Your task to perform on an android device: delete location history Image 0: 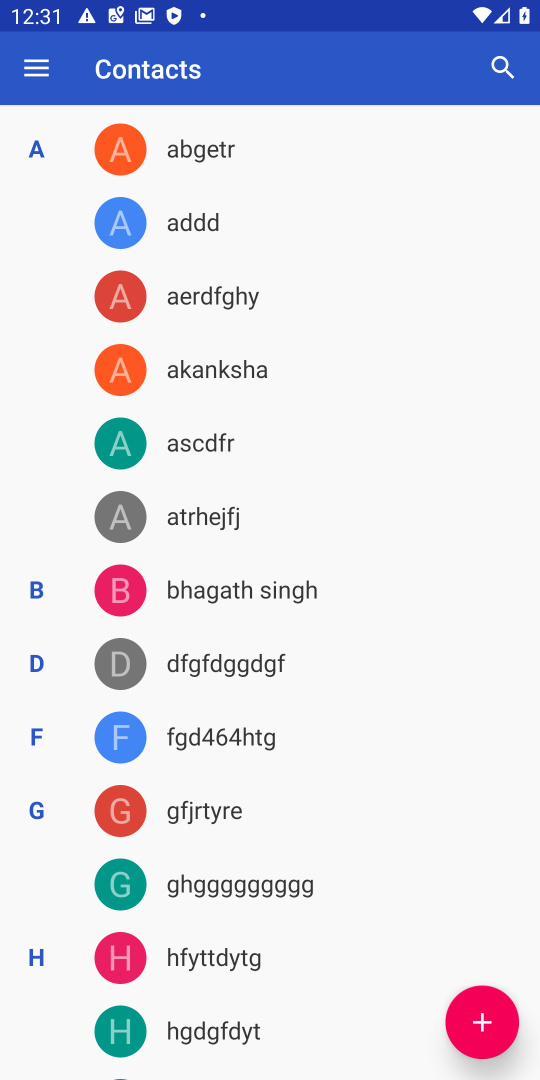
Step 0: press back button
Your task to perform on an android device: delete location history Image 1: 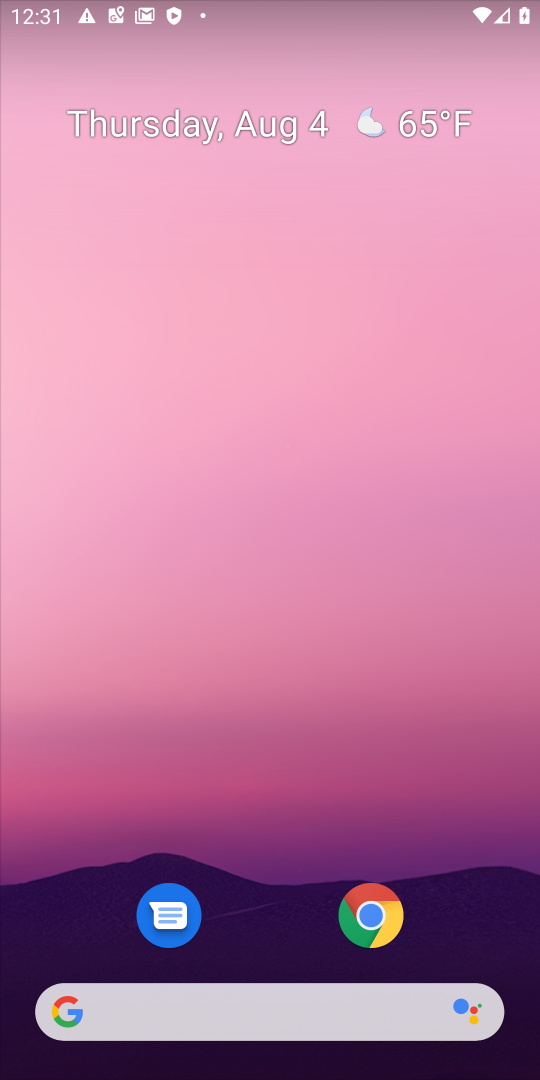
Step 1: drag from (269, 835) to (228, 102)
Your task to perform on an android device: delete location history Image 2: 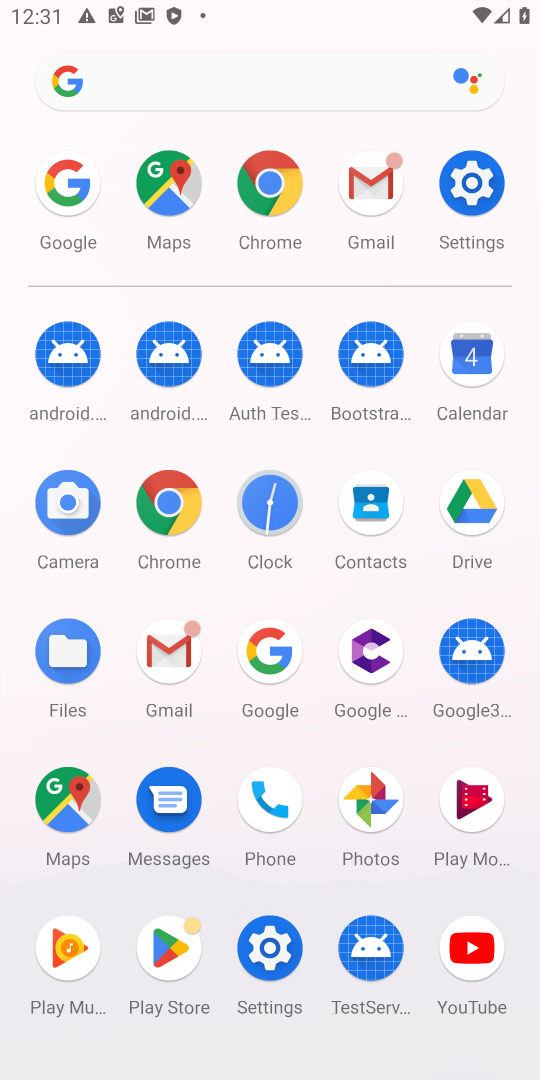
Step 2: click (471, 186)
Your task to perform on an android device: delete location history Image 3: 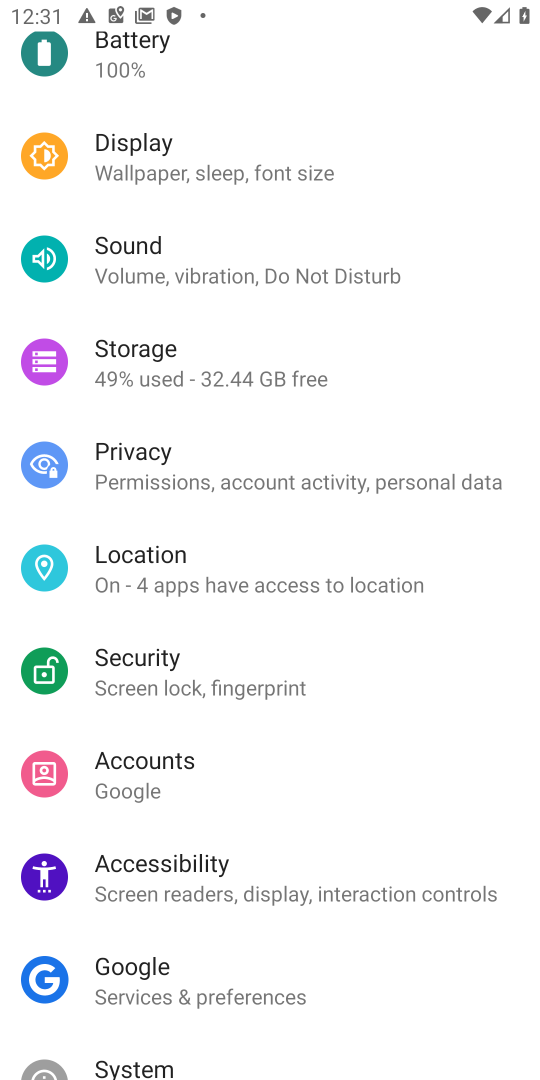
Step 3: click (117, 564)
Your task to perform on an android device: delete location history Image 4: 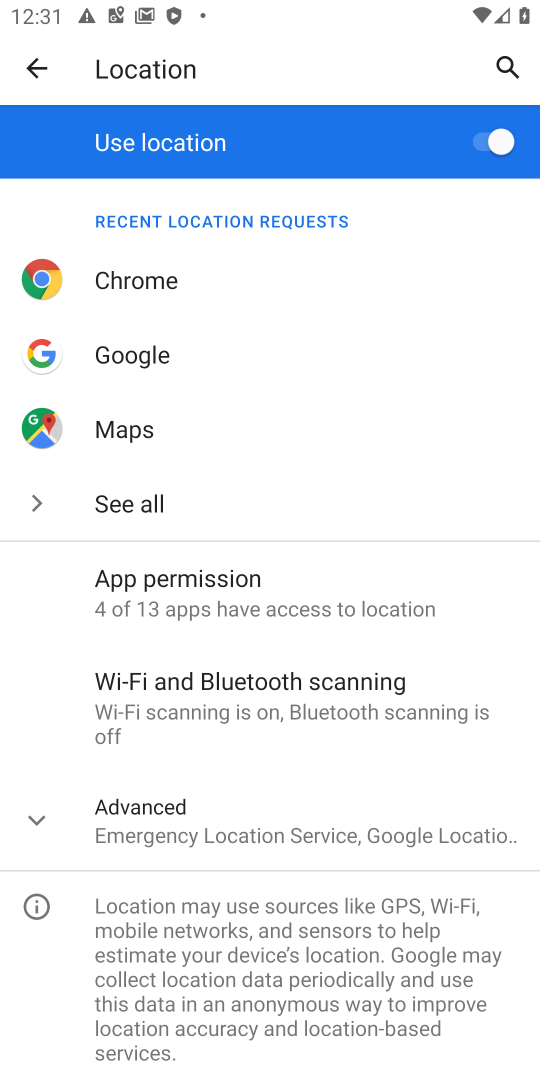
Step 4: click (143, 809)
Your task to perform on an android device: delete location history Image 5: 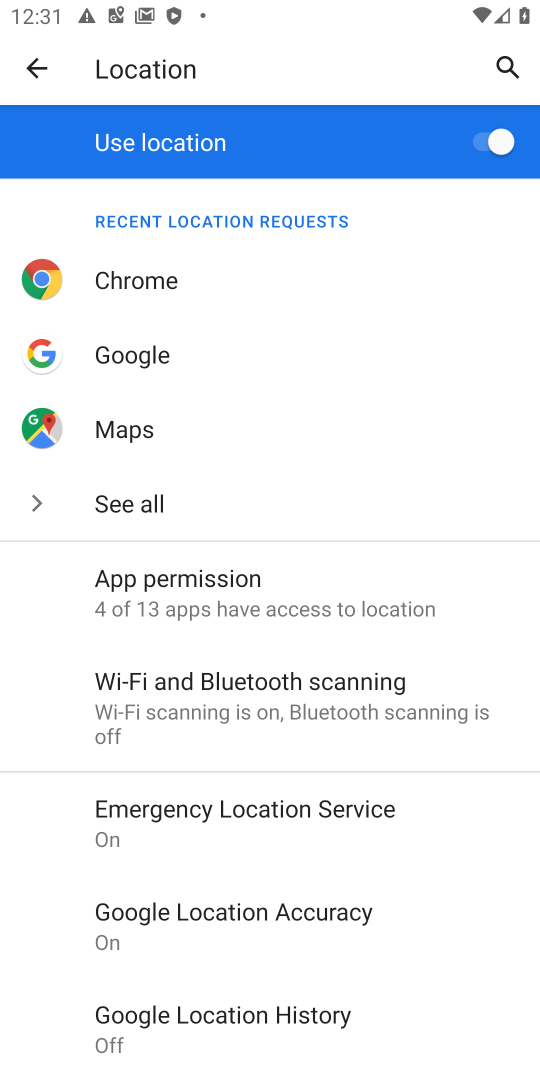
Step 5: click (270, 1021)
Your task to perform on an android device: delete location history Image 6: 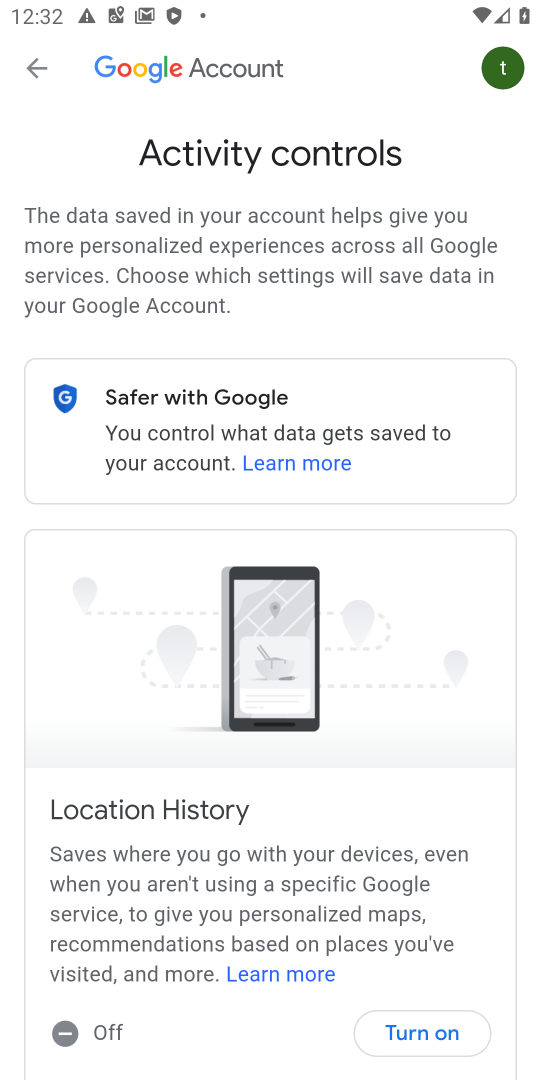
Step 6: drag from (446, 851) to (431, 659)
Your task to perform on an android device: delete location history Image 7: 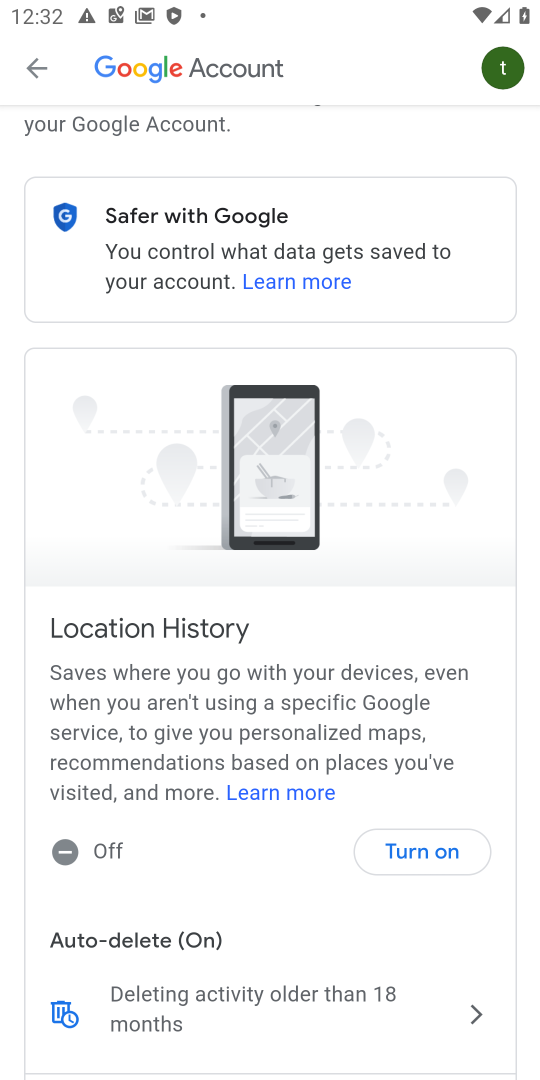
Step 7: drag from (317, 984) to (308, 773)
Your task to perform on an android device: delete location history Image 8: 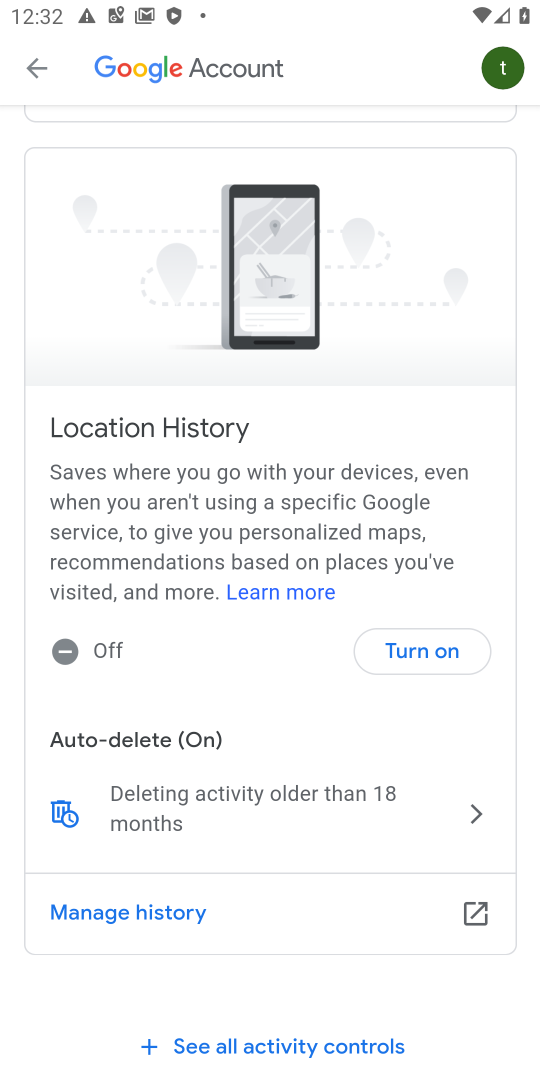
Step 8: click (128, 908)
Your task to perform on an android device: delete location history Image 9: 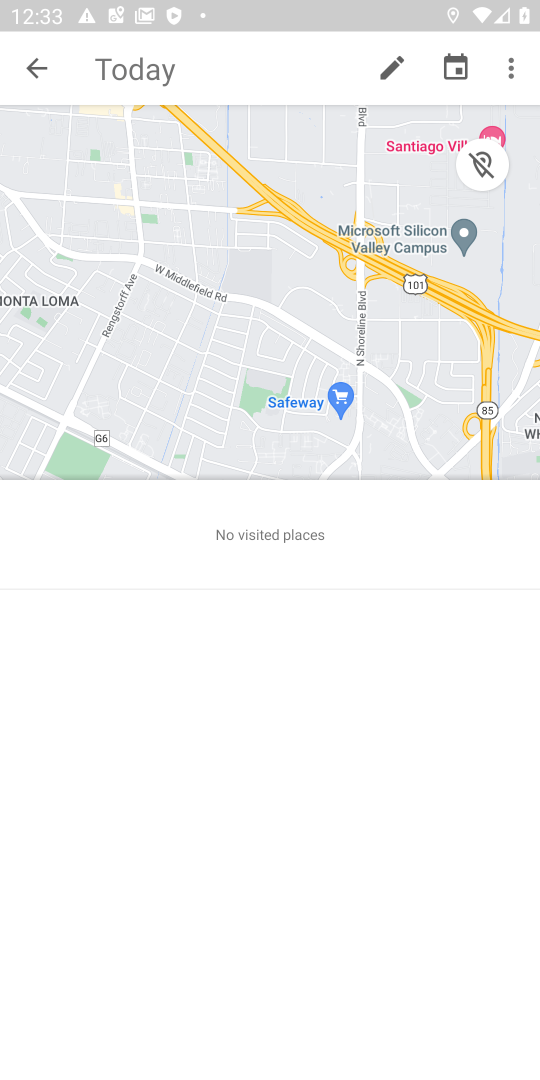
Step 9: click (517, 77)
Your task to perform on an android device: delete location history Image 10: 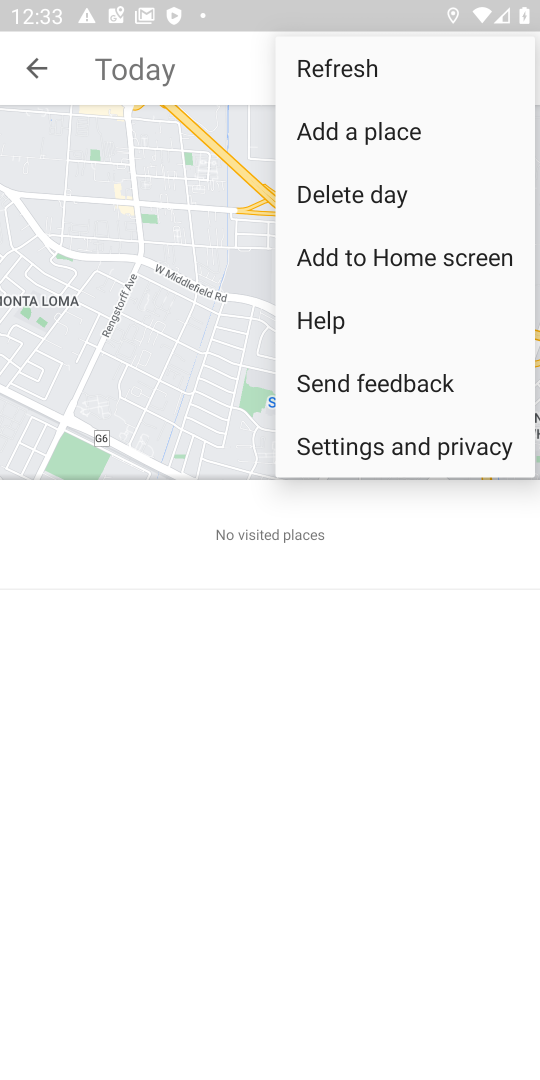
Step 10: click (372, 442)
Your task to perform on an android device: delete location history Image 11: 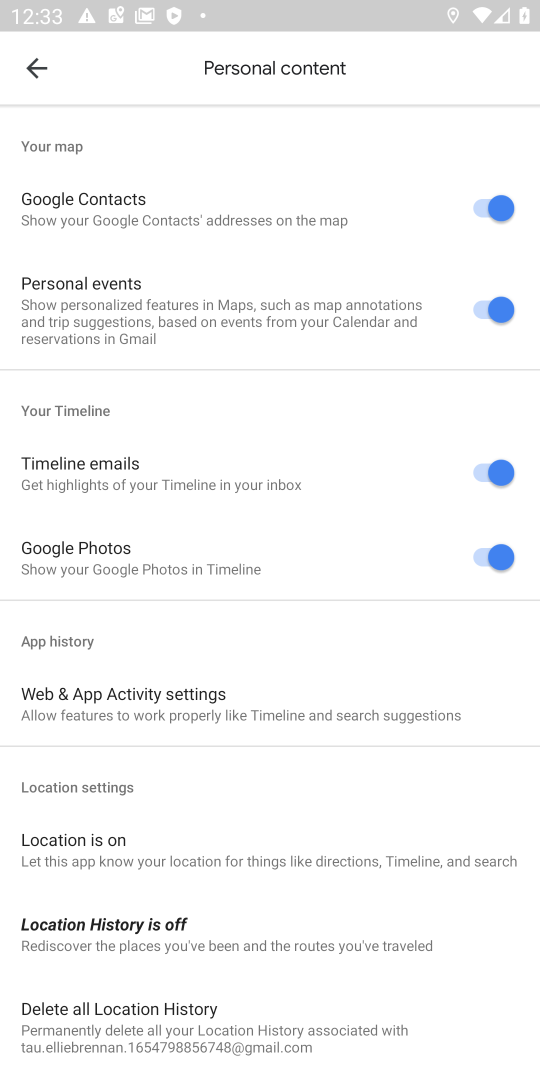
Step 11: click (172, 1009)
Your task to perform on an android device: delete location history Image 12: 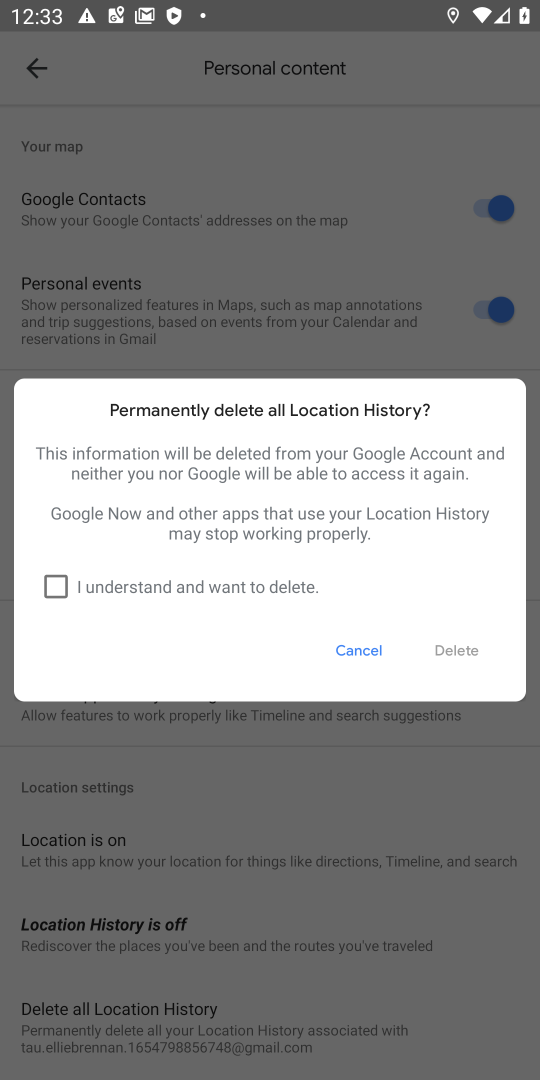
Step 12: click (55, 581)
Your task to perform on an android device: delete location history Image 13: 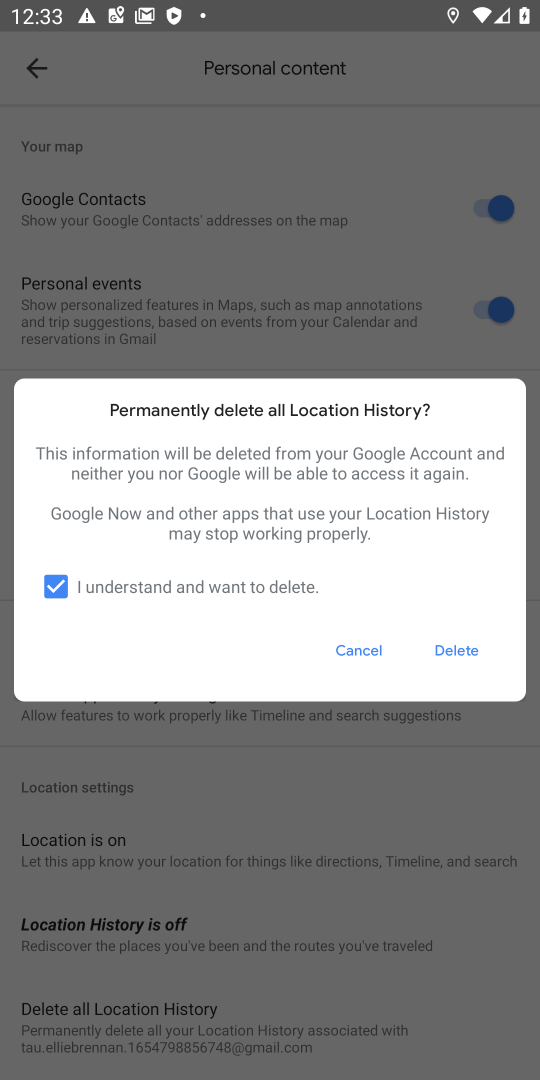
Step 13: click (453, 649)
Your task to perform on an android device: delete location history Image 14: 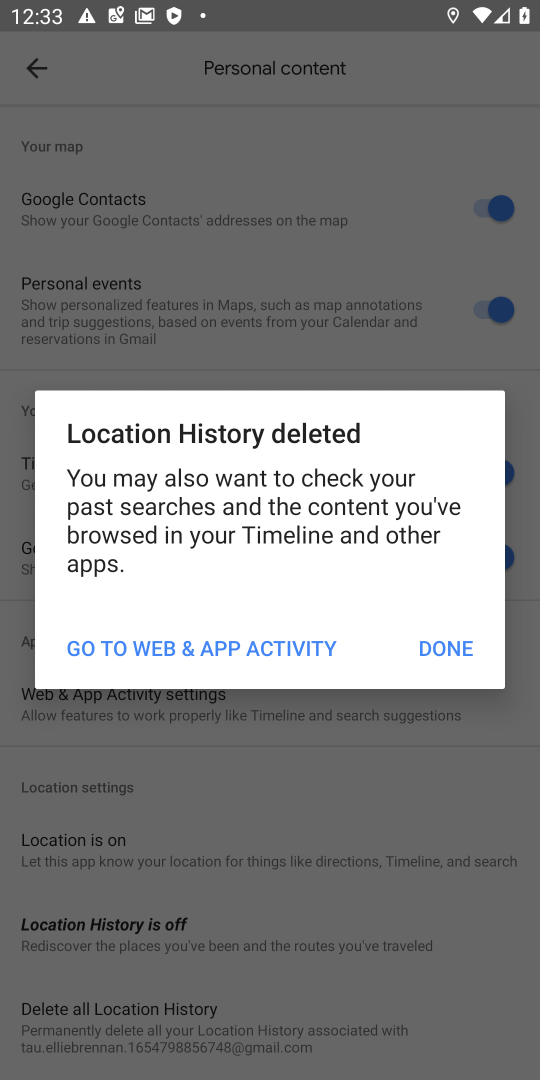
Step 14: click (446, 648)
Your task to perform on an android device: delete location history Image 15: 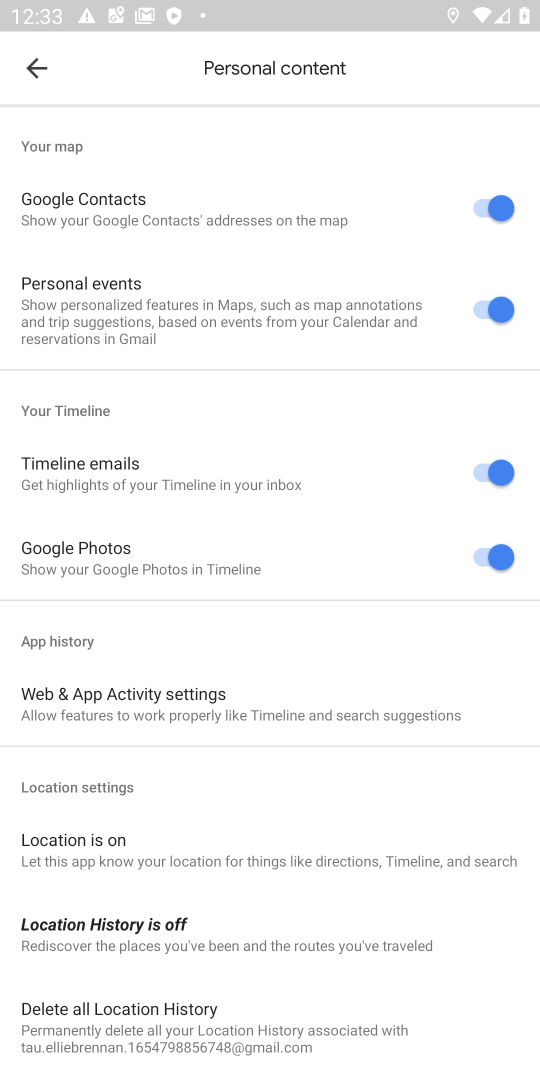
Step 15: task complete